Your task to perform on an android device: Go to Google maps Image 0: 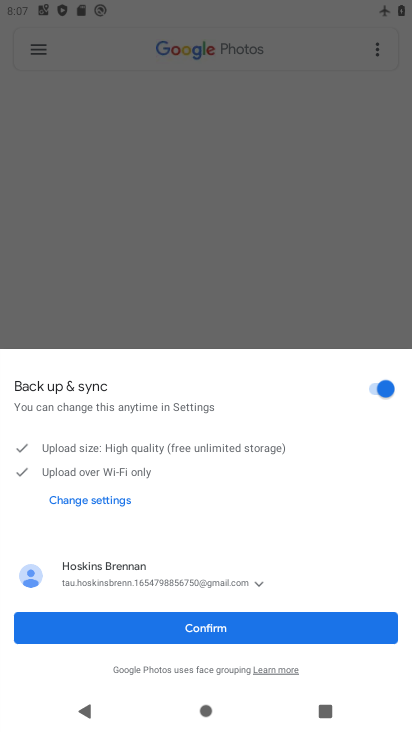
Step 0: press home button
Your task to perform on an android device: Go to Google maps Image 1: 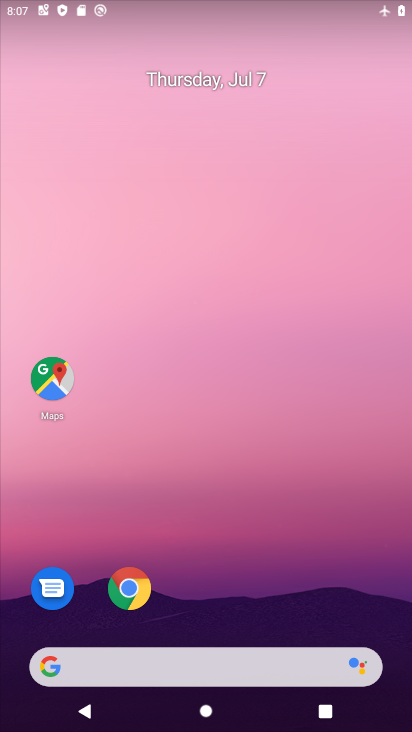
Step 1: drag from (325, 584) to (309, 128)
Your task to perform on an android device: Go to Google maps Image 2: 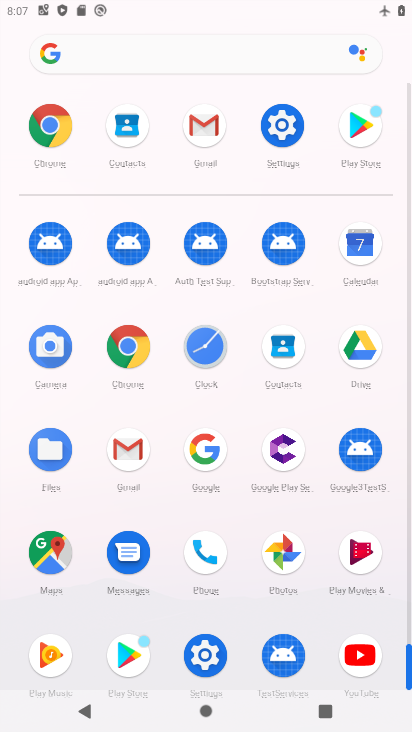
Step 2: click (52, 538)
Your task to perform on an android device: Go to Google maps Image 3: 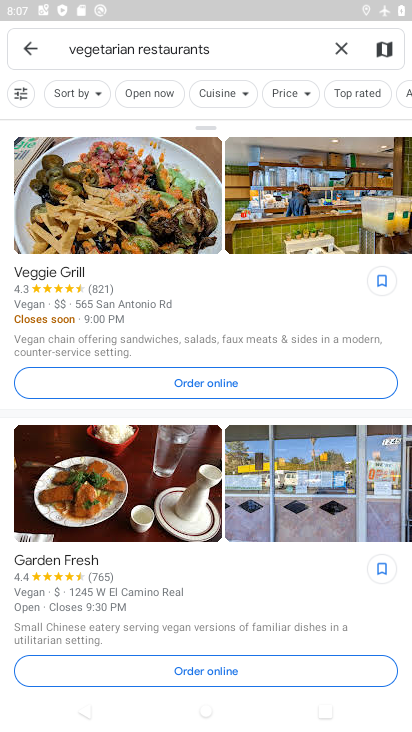
Step 3: task complete